Your task to perform on an android device: Open the stopwatch Image 0: 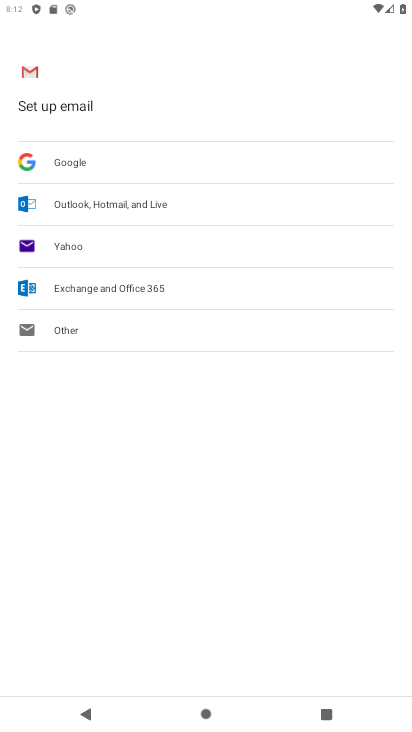
Step 0: press home button
Your task to perform on an android device: Open the stopwatch Image 1: 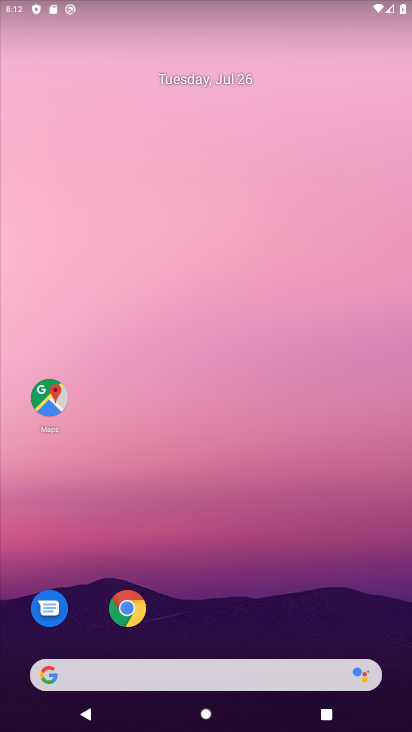
Step 1: drag from (292, 654) to (392, 6)
Your task to perform on an android device: Open the stopwatch Image 2: 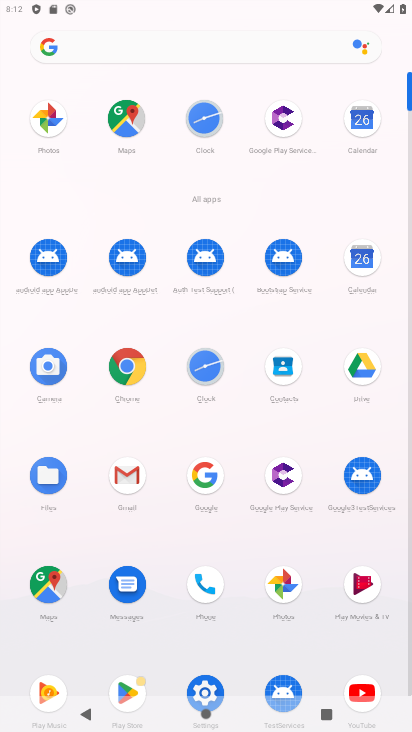
Step 2: click (205, 376)
Your task to perform on an android device: Open the stopwatch Image 3: 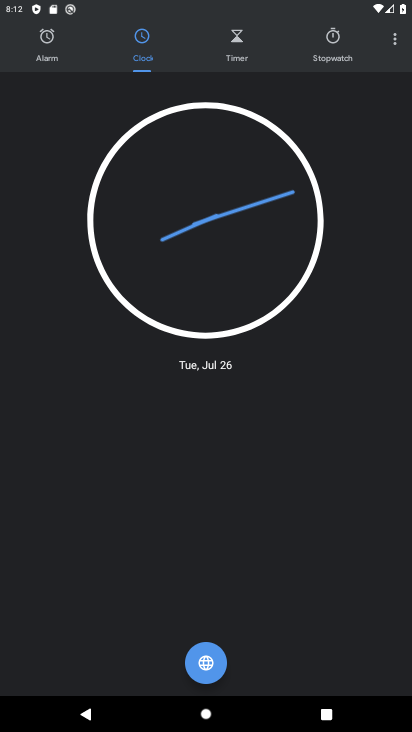
Step 3: click (325, 41)
Your task to perform on an android device: Open the stopwatch Image 4: 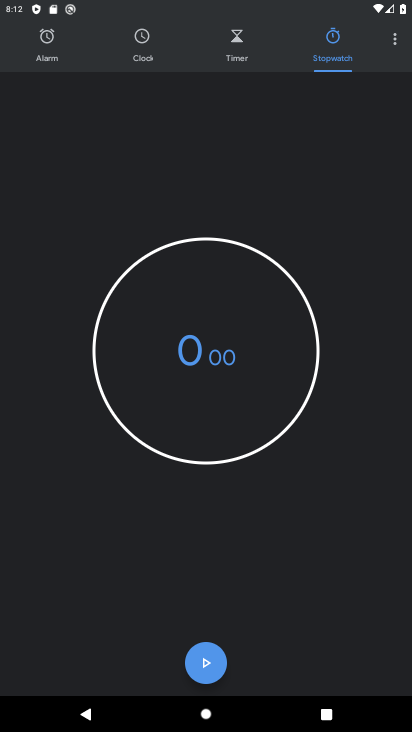
Step 4: click (199, 661)
Your task to perform on an android device: Open the stopwatch Image 5: 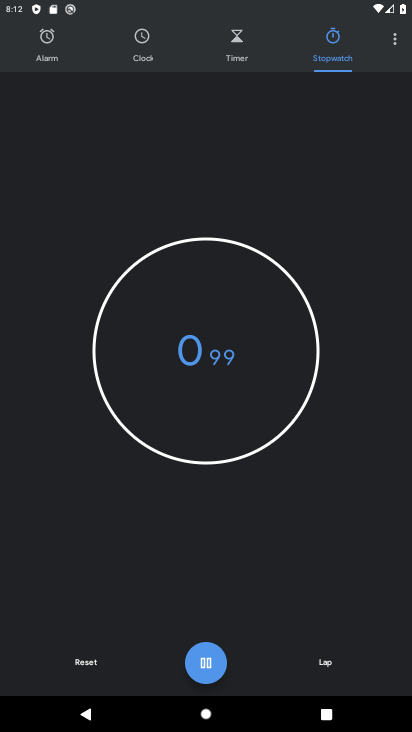
Step 5: task complete